Your task to perform on an android device: clear history in the chrome app Image 0: 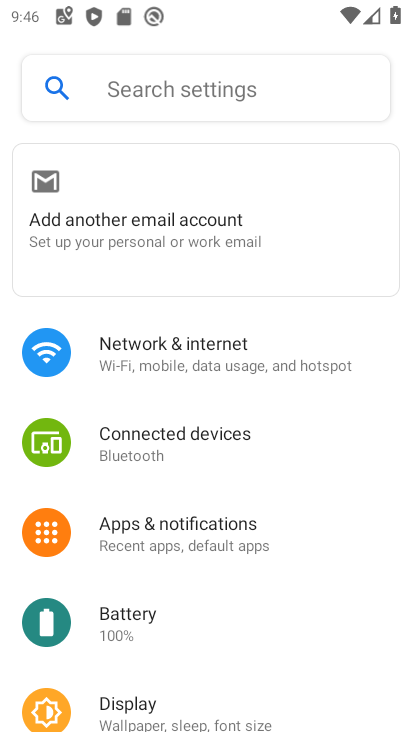
Step 0: press home button
Your task to perform on an android device: clear history in the chrome app Image 1: 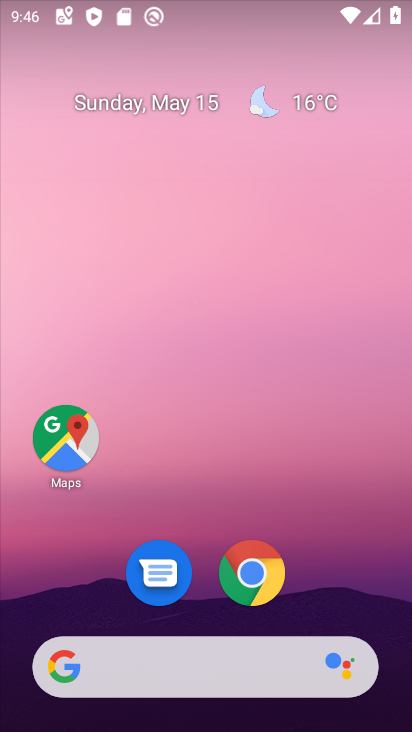
Step 1: click (257, 556)
Your task to perform on an android device: clear history in the chrome app Image 2: 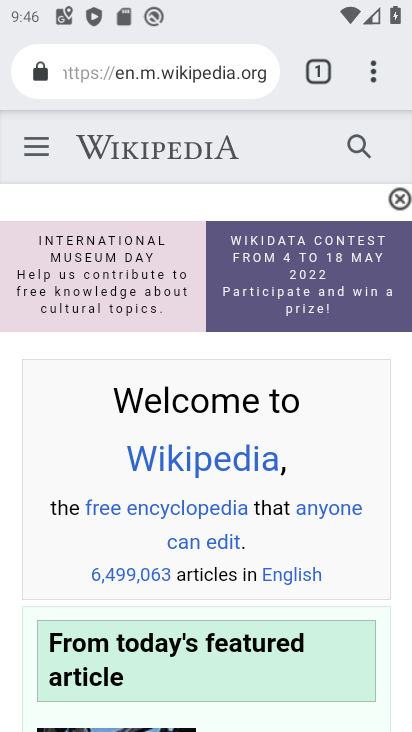
Step 2: drag from (378, 66) to (134, 557)
Your task to perform on an android device: clear history in the chrome app Image 3: 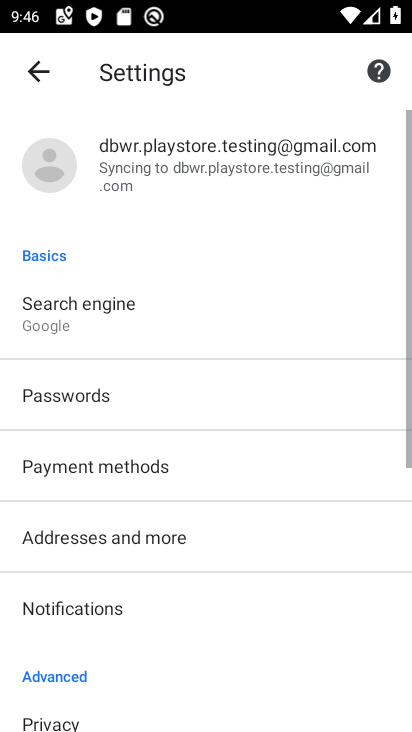
Step 3: drag from (159, 568) to (213, 140)
Your task to perform on an android device: clear history in the chrome app Image 4: 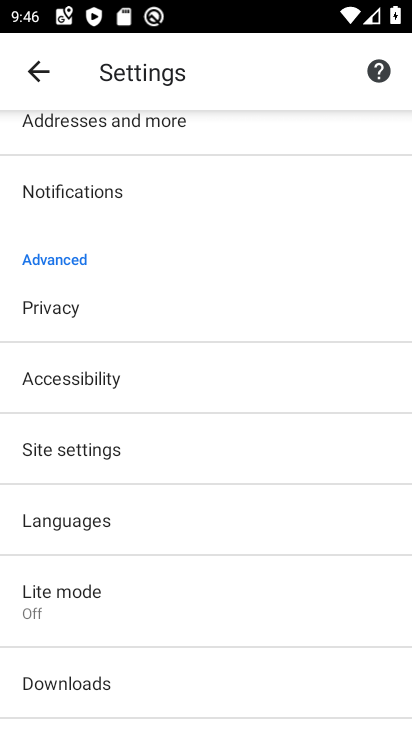
Step 4: click (35, 72)
Your task to perform on an android device: clear history in the chrome app Image 5: 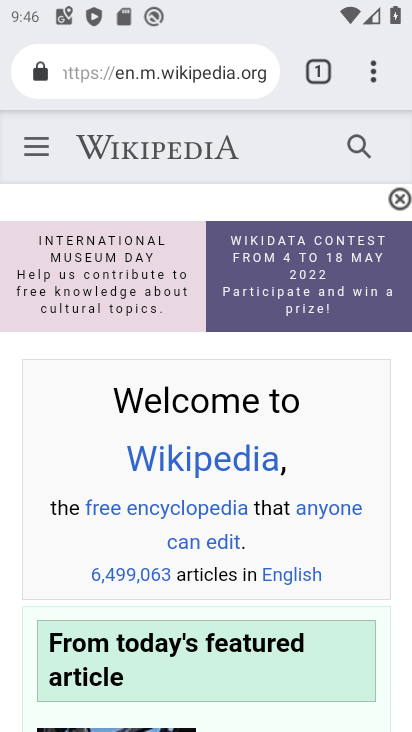
Step 5: task complete